Your task to perform on an android device: open wifi settings Image 0: 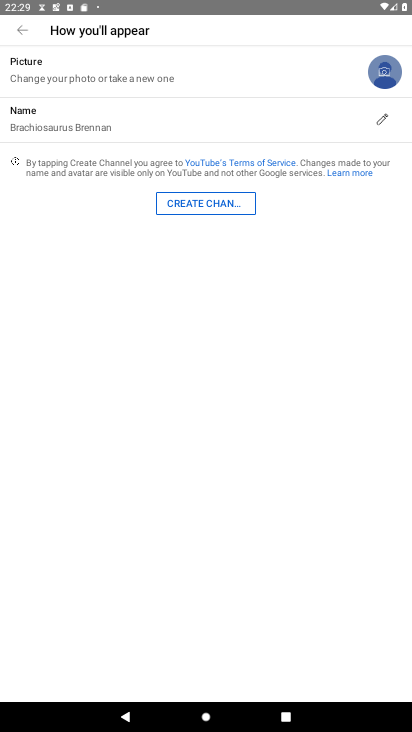
Step 0: press back button
Your task to perform on an android device: open wifi settings Image 1: 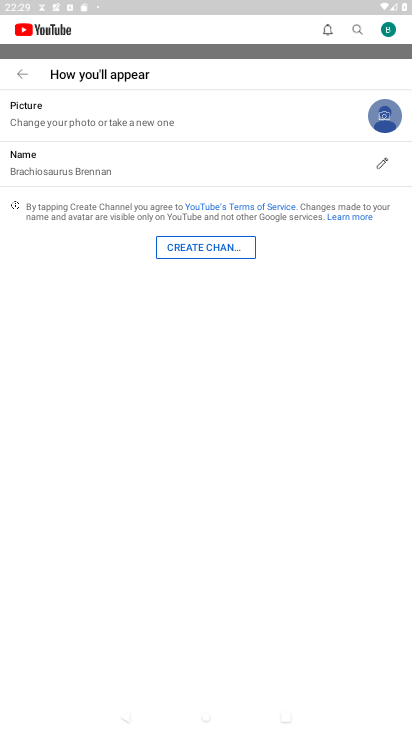
Step 1: press back button
Your task to perform on an android device: open wifi settings Image 2: 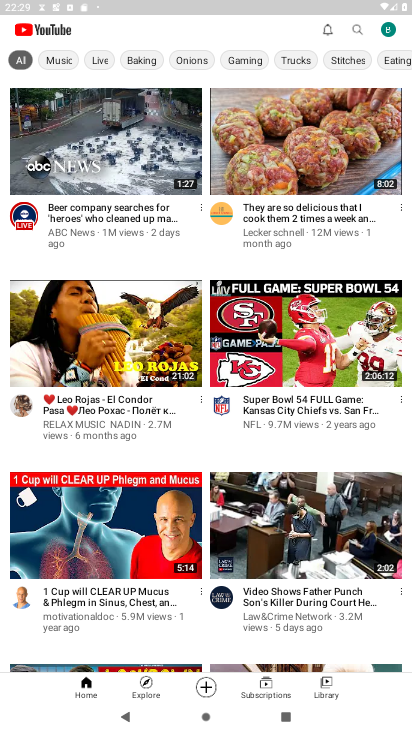
Step 2: press back button
Your task to perform on an android device: open wifi settings Image 3: 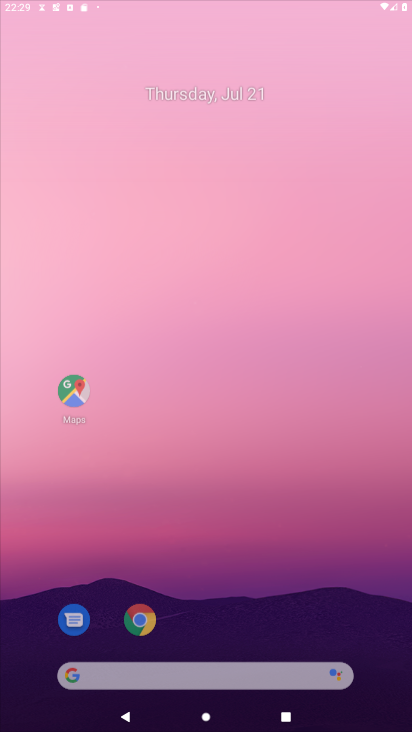
Step 3: press back button
Your task to perform on an android device: open wifi settings Image 4: 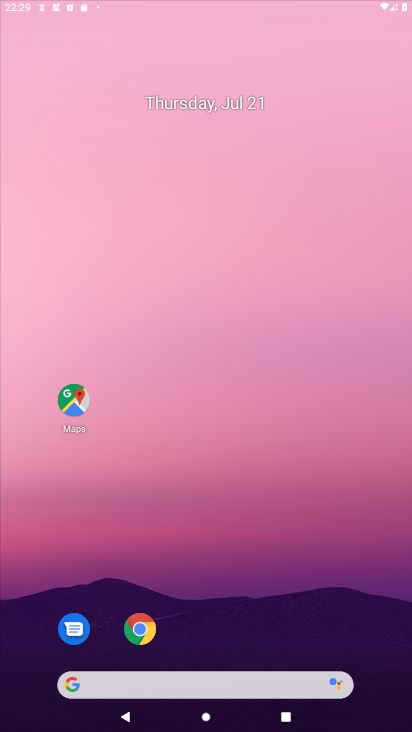
Step 4: press back button
Your task to perform on an android device: open wifi settings Image 5: 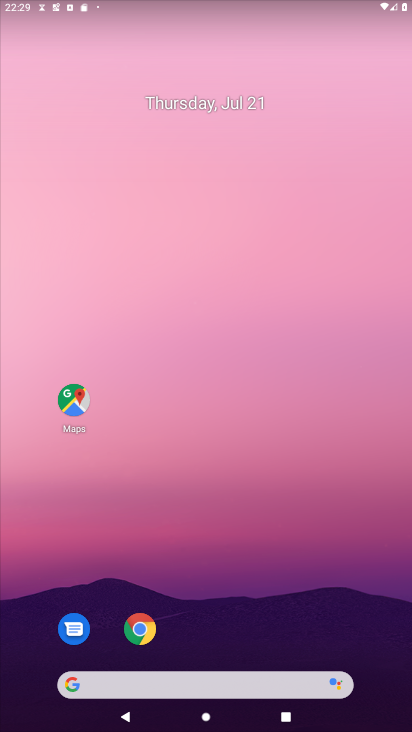
Step 5: press back button
Your task to perform on an android device: open wifi settings Image 6: 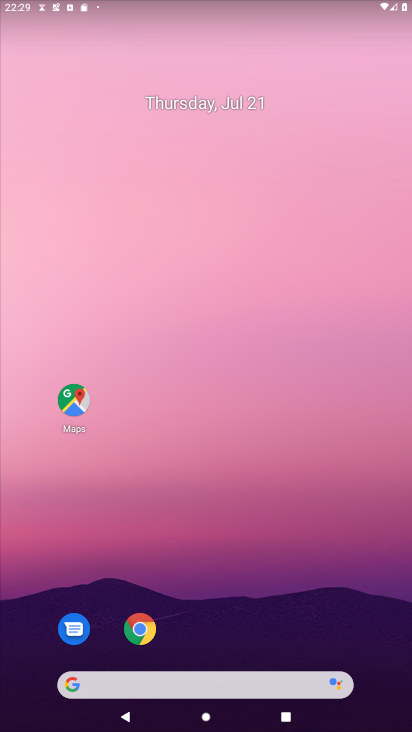
Step 6: drag from (226, 575) to (218, 69)
Your task to perform on an android device: open wifi settings Image 7: 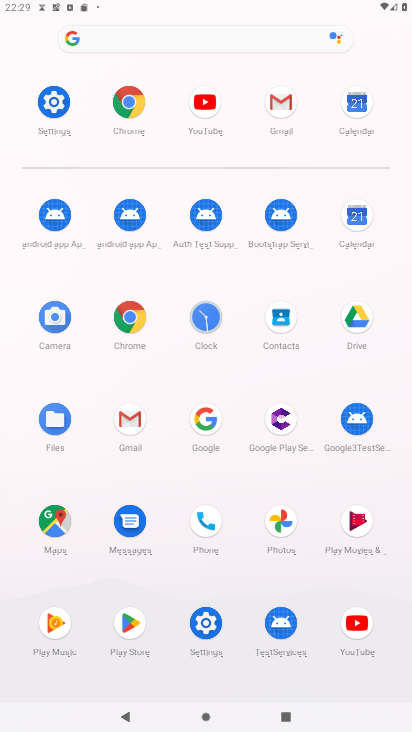
Step 7: click (54, 110)
Your task to perform on an android device: open wifi settings Image 8: 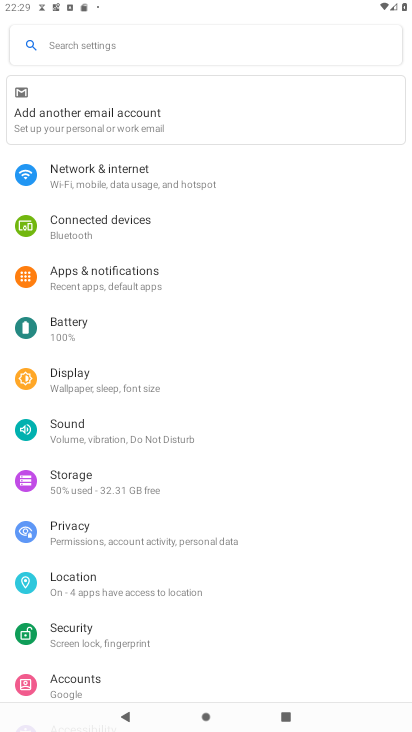
Step 8: click (167, 182)
Your task to perform on an android device: open wifi settings Image 9: 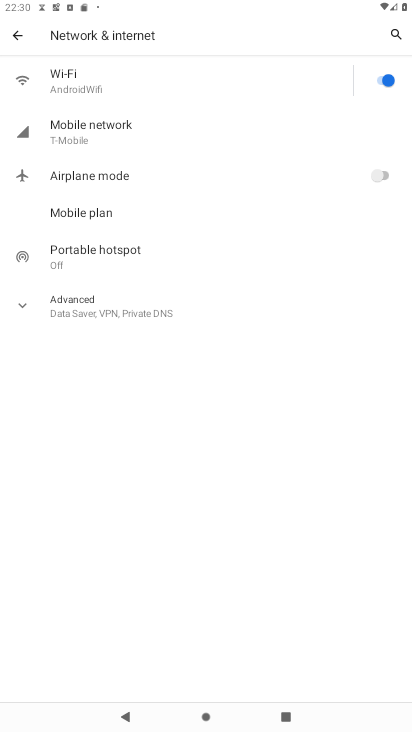
Step 9: click (232, 84)
Your task to perform on an android device: open wifi settings Image 10: 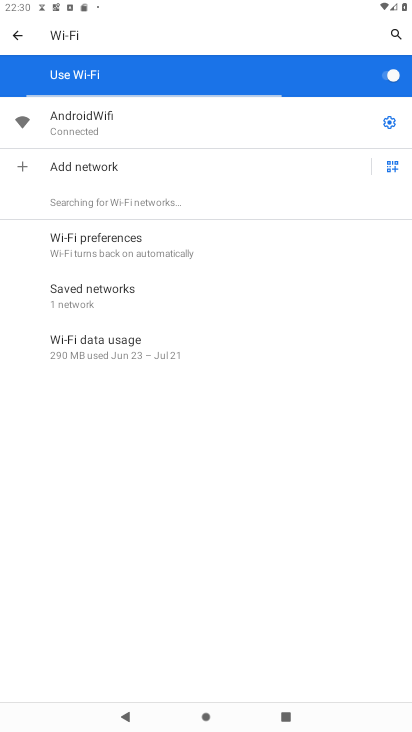
Step 10: task complete